Your task to perform on an android device: turn off data saver in the chrome app Image 0: 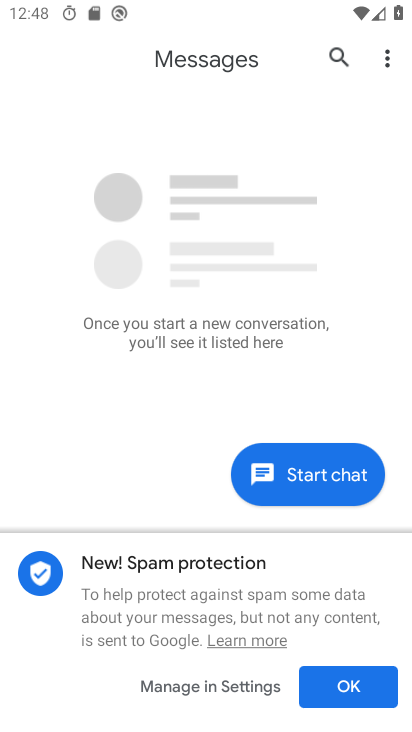
Step 0: press back button
Your task to perform on an android device: turn off data saver in the chrome app Image 1: 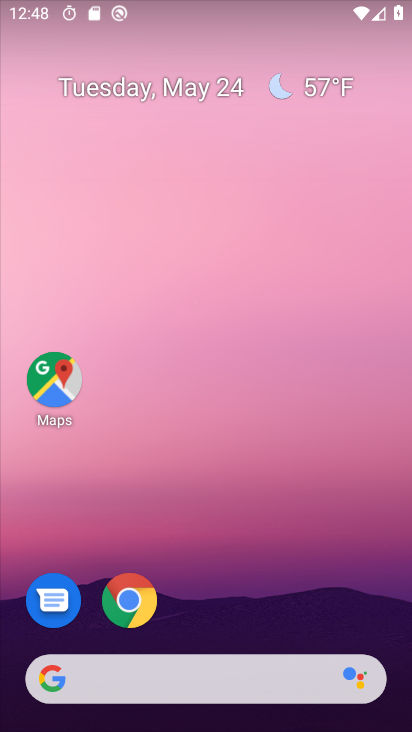
Step 1: click (120, 595)
Your task to perform on an android device: turn off data saver in the chrome app Image 2: 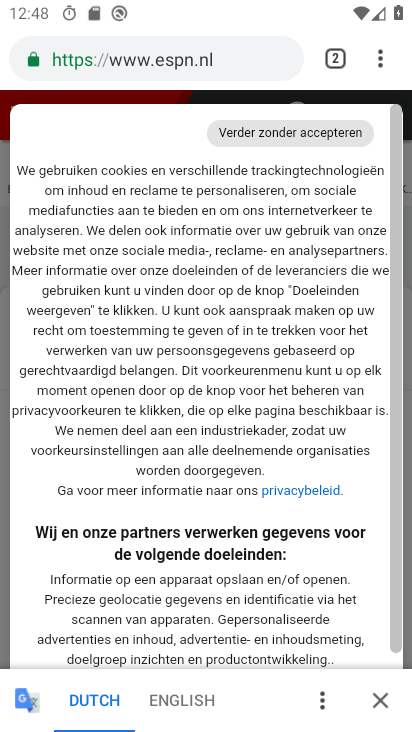
Step 2: drag from (388, 54) to (199, 617)
Your task to perform on an android device: turn off data saver in the chrome app Image 3: 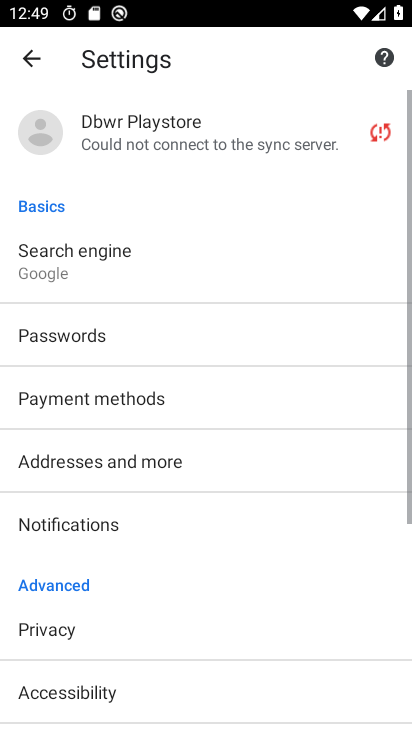
Step 3: drag from (190, 602) to (324, 26)
Your task to perform on an android device: turn off data saver in the chrome app Image 4: 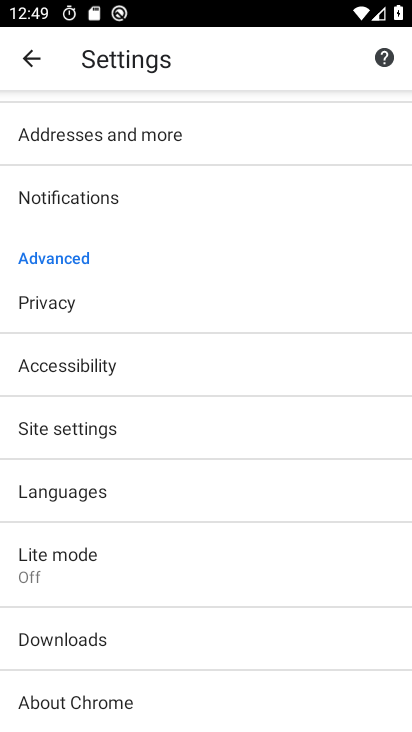
Step 4: click (106, 555)
Your task to perform on an android device: turn off data saver in the chrome app Image 5: 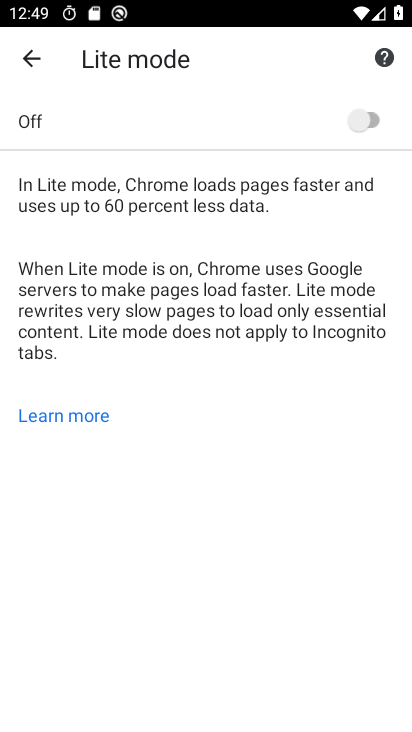
Step 5: task complete